Your task to perform on an android device: Open Reddit.com Image 0: 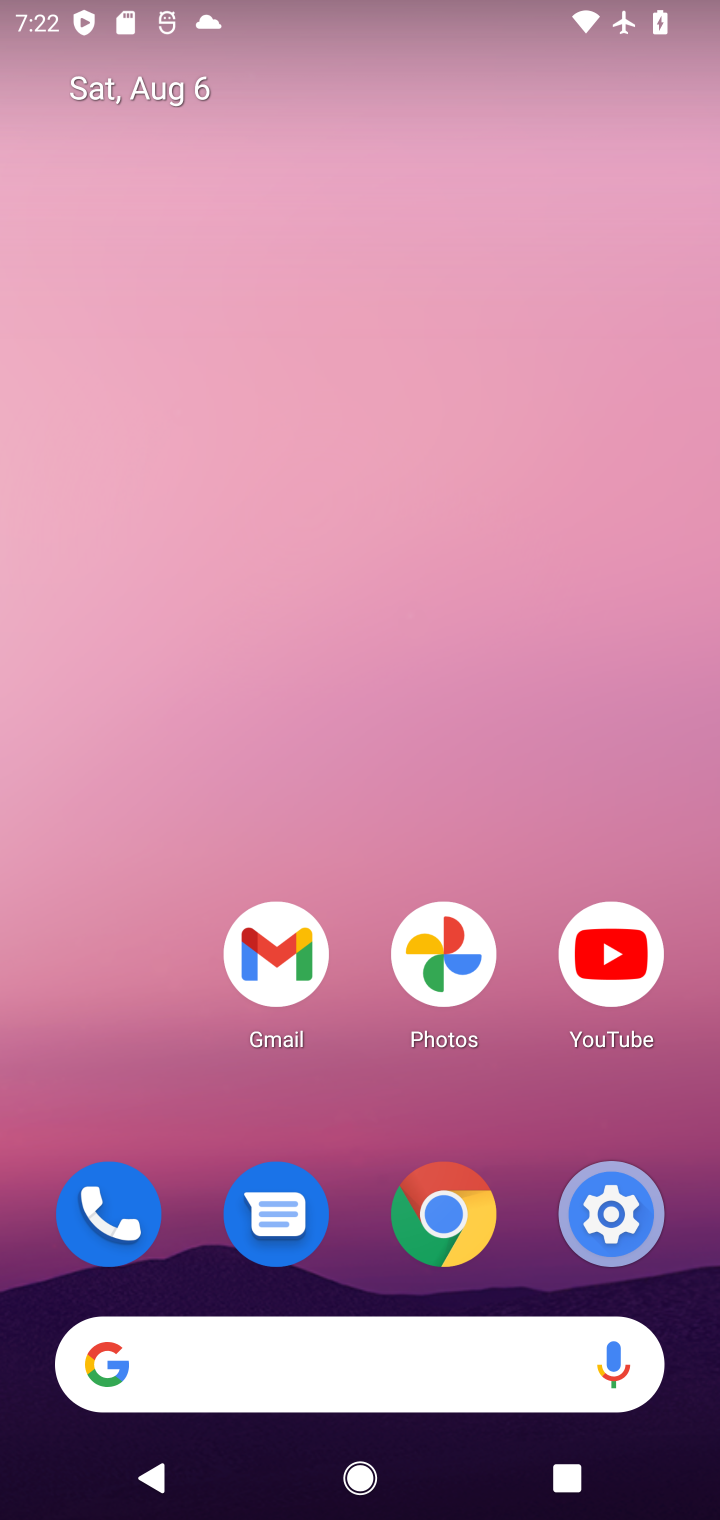
Step 0: click (443, 1236)
Your task to perform on an android device: Open Reddit.com Image 1: 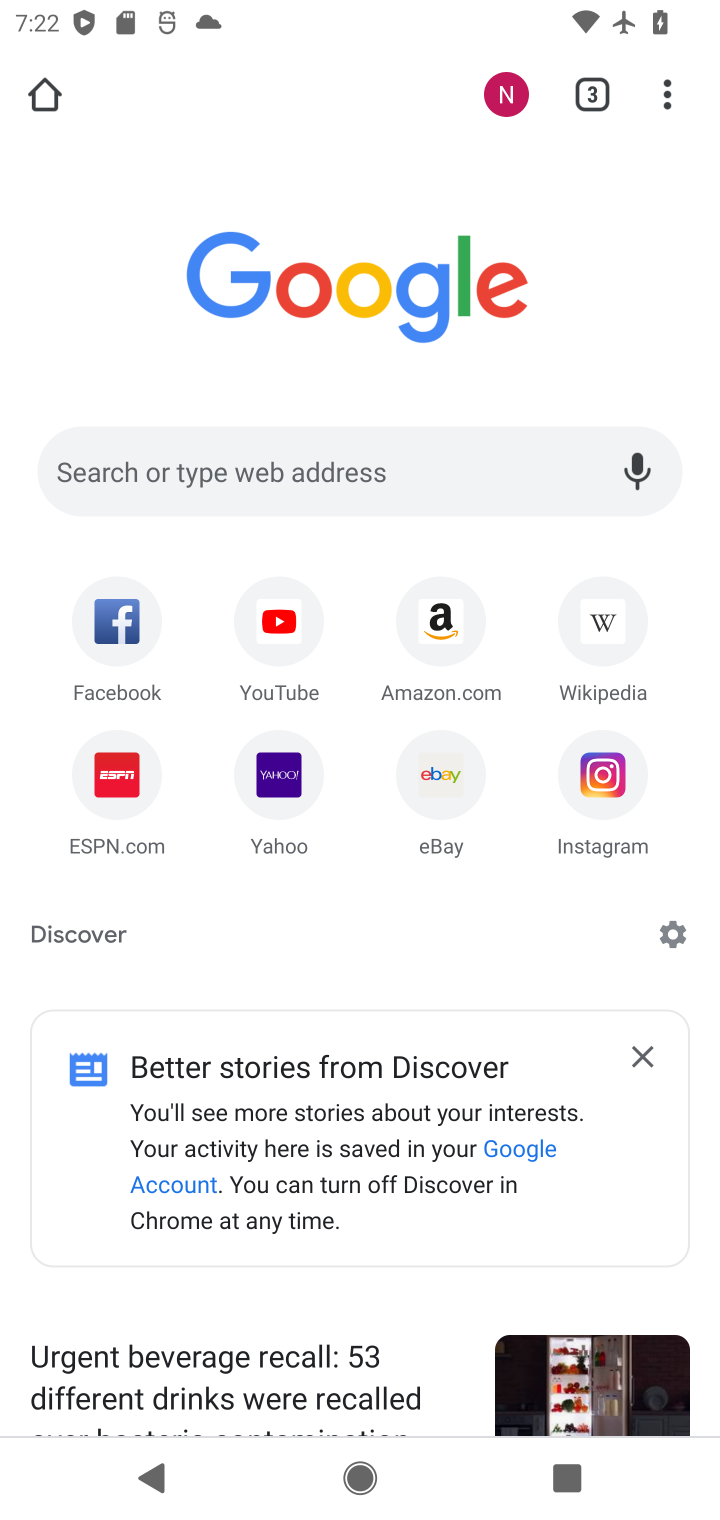
Step 1: click (330, 477)
Your task to perform on an android device: Open Reddit.com Image 2: 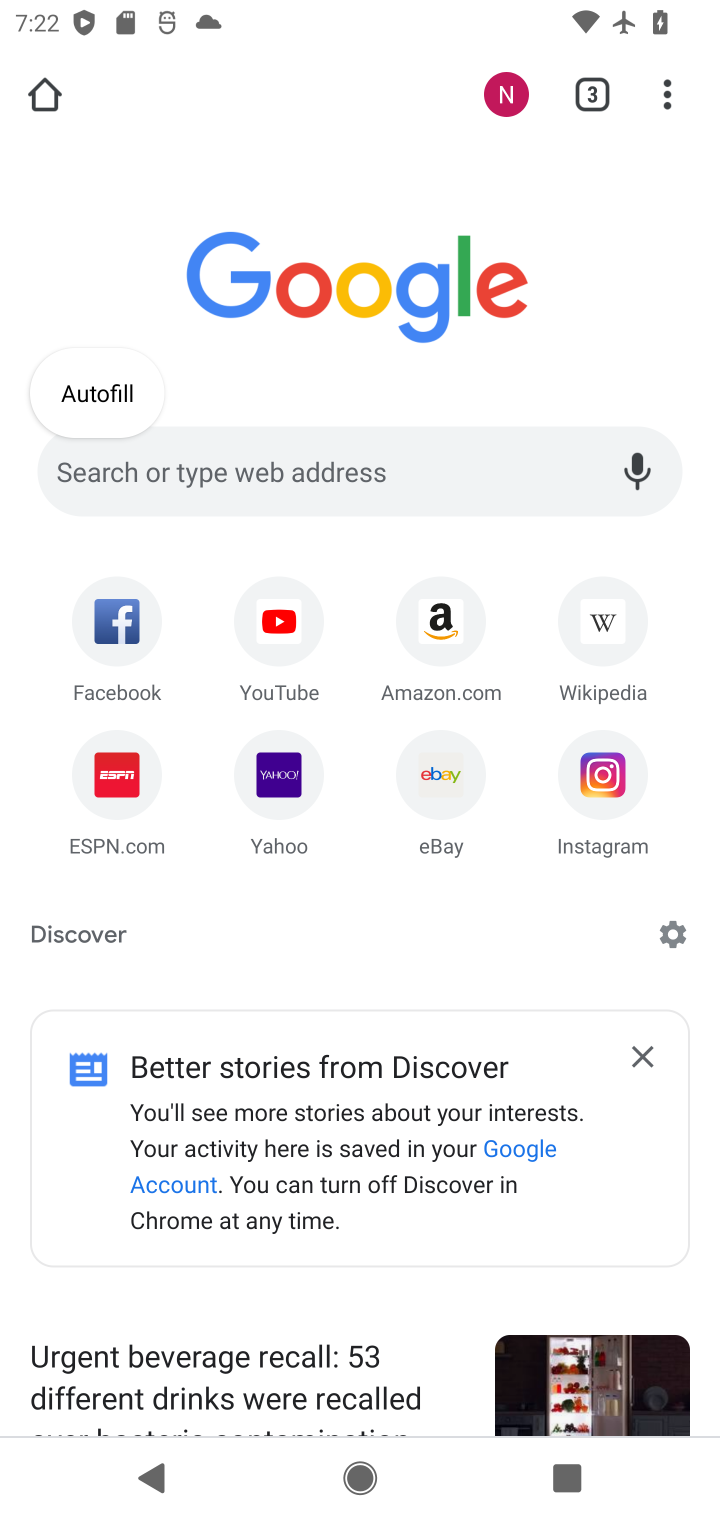
Step 2: type "reddit.com"
Your task to perform on an android device: Open Reddit.com Image 3: 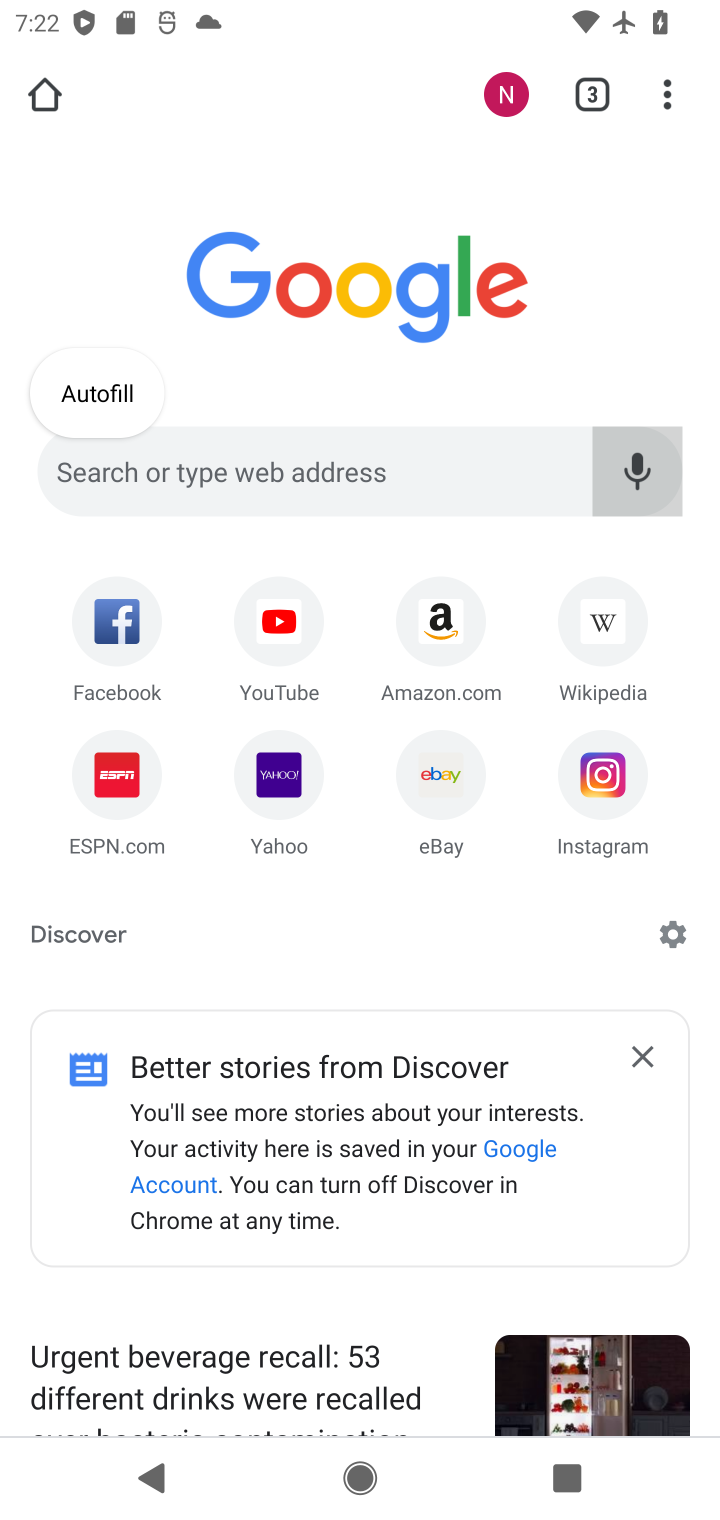
Step 3: click (284, 484)
Your task to perform on an android device: Open Reddit.com Image 4: 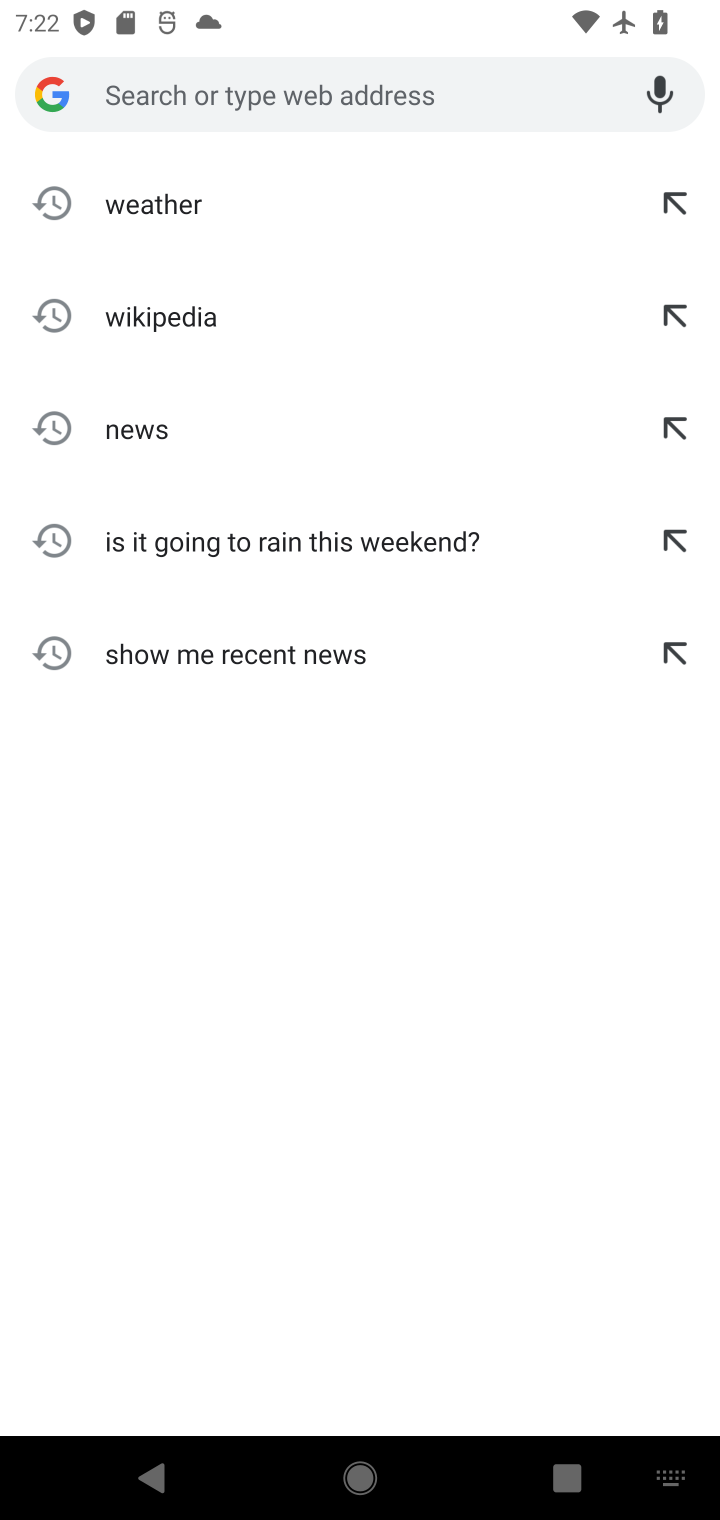
Step 4: type "reddit.com"
Your task to perform on an android device: Open Reddit.com Image 5: 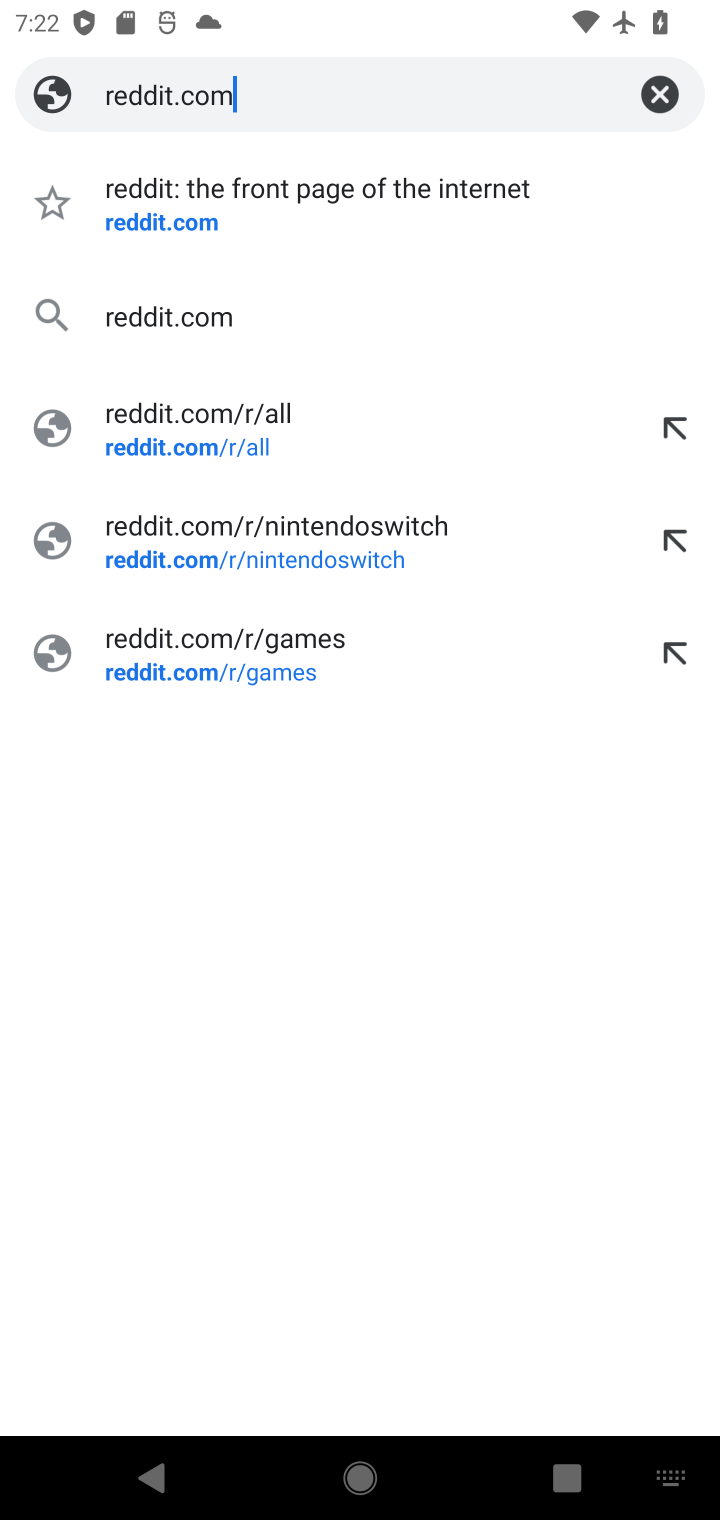
Step 5: click (237, 211)
Your task to perform on an android device: Open Reddit.com Image 6: 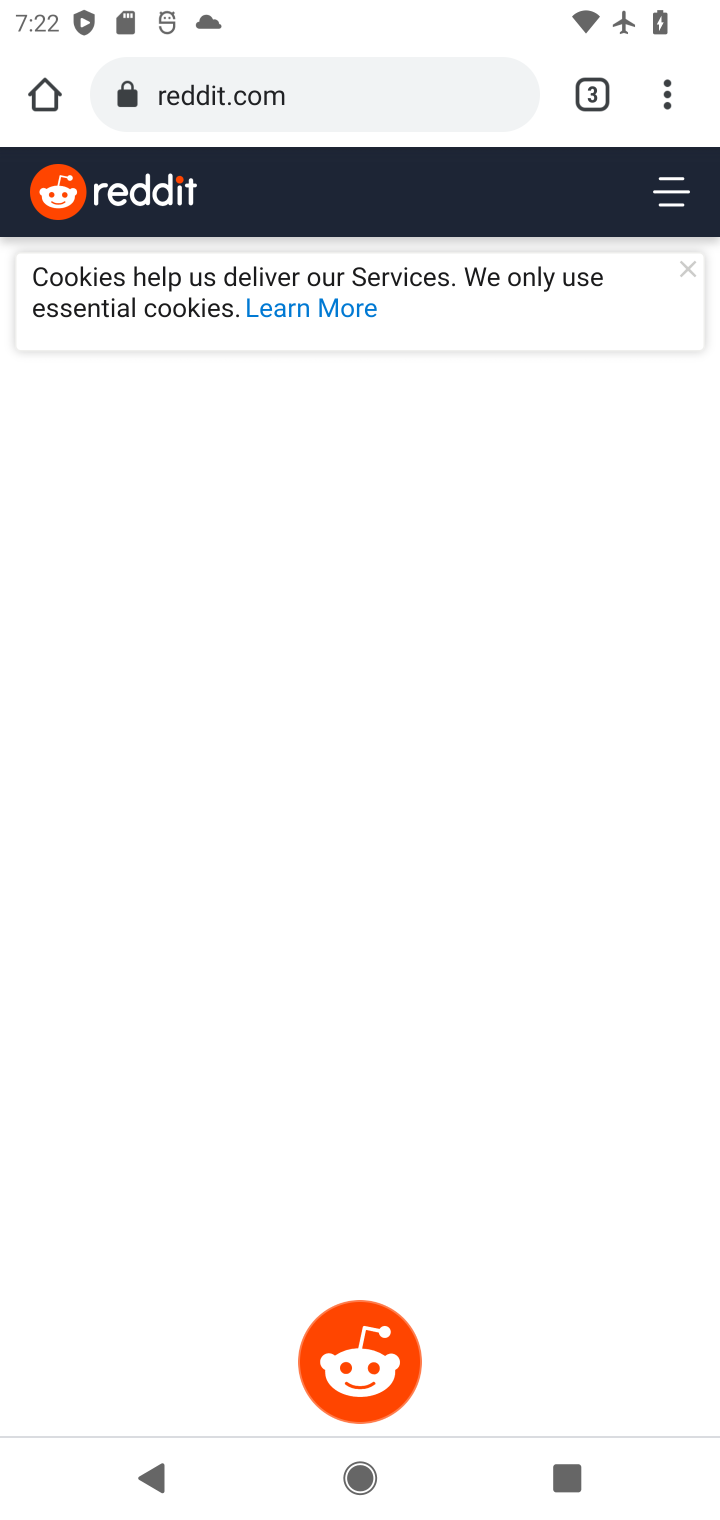
Step 6: task complete